Your task to perform on an android device: install app "Messenger Lite" Image 0: 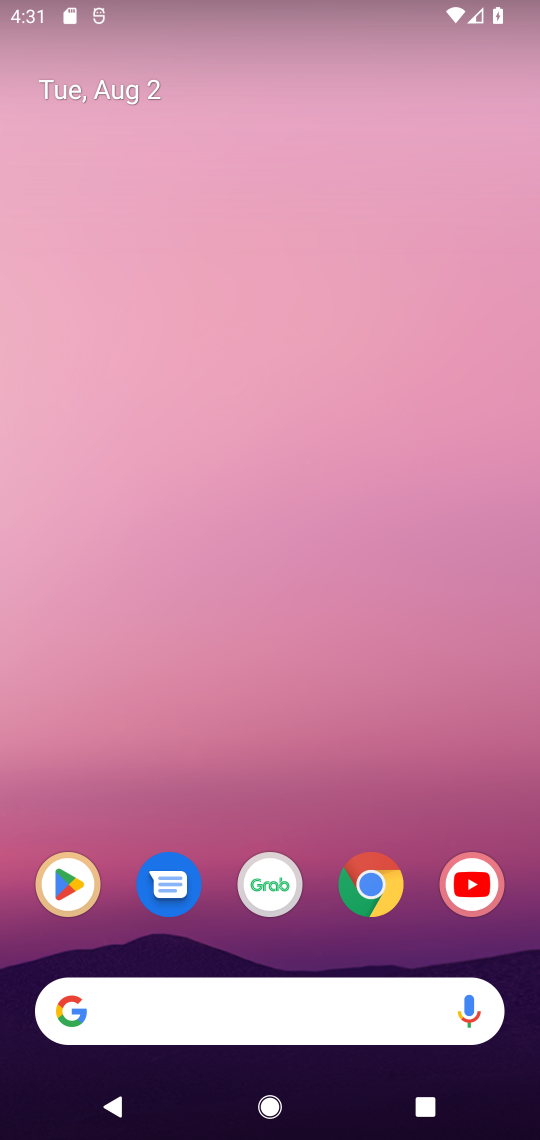
Step 0: click (93, 869)
Your task to perform on an android device: install app "Messenger Lite" Image 1: 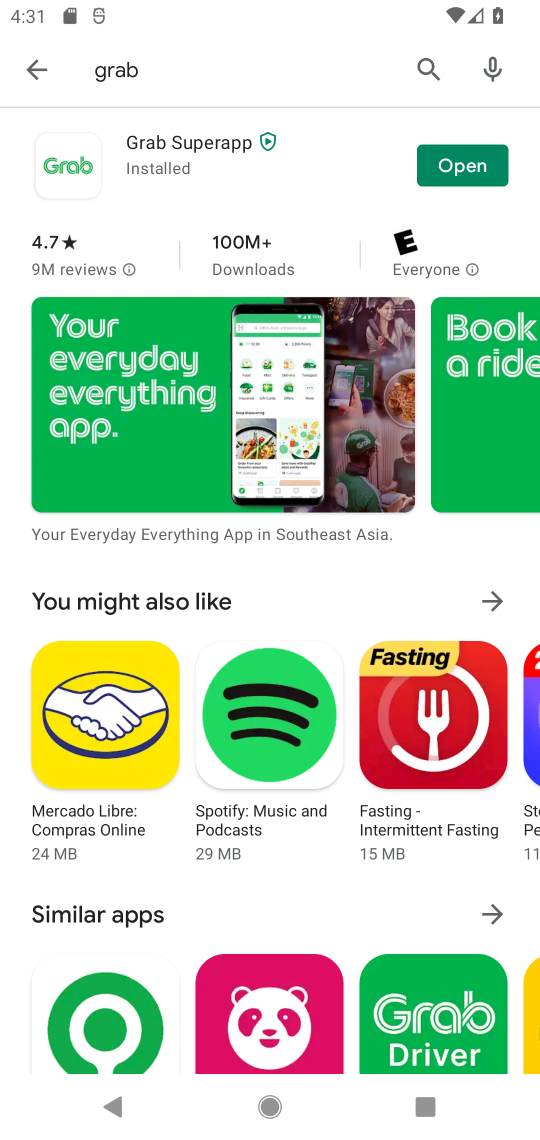
Step 1: click (431, 66)
Your task to perform on an android device: install app "Messenger Lite" Image 2: 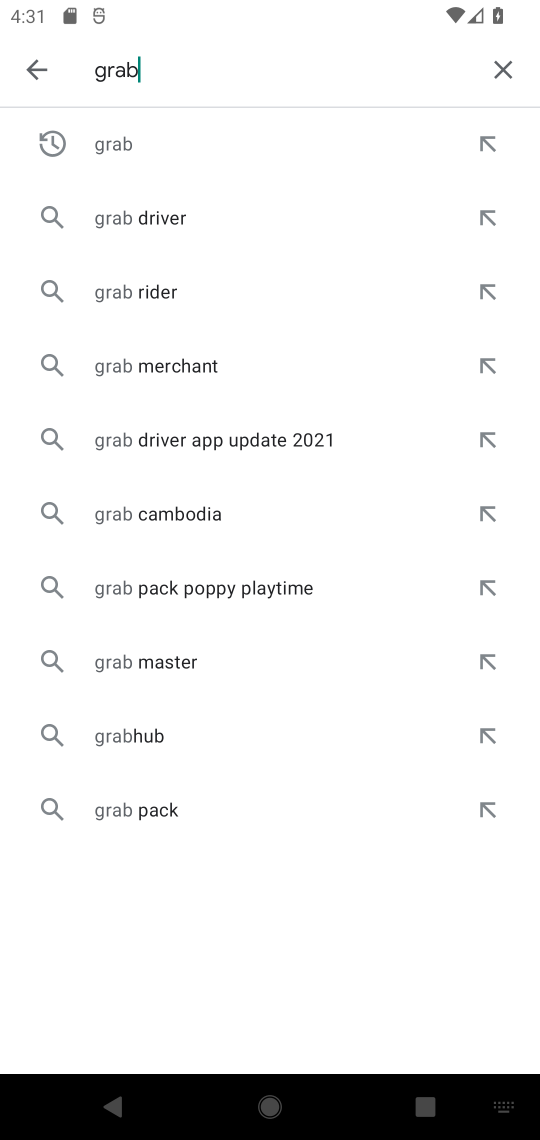
Step 2: click (504, 68)
Your task to perform on an android device: install app "Messenger Lite" Image 3: 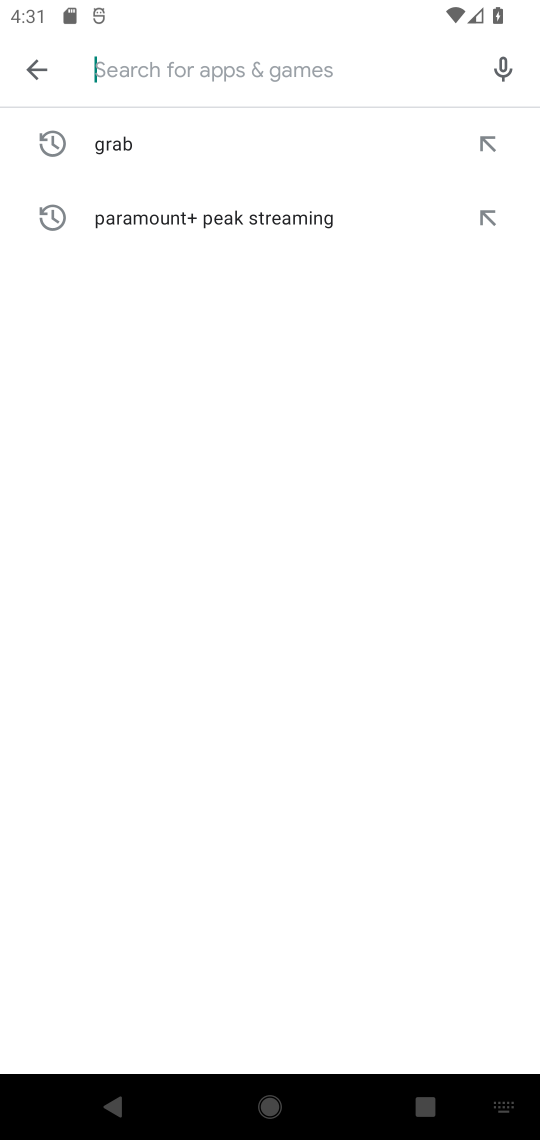
Step 3: type "Messenger Lite"
Your task to perform on an android device: install app "Messenger Lite" Image 4: 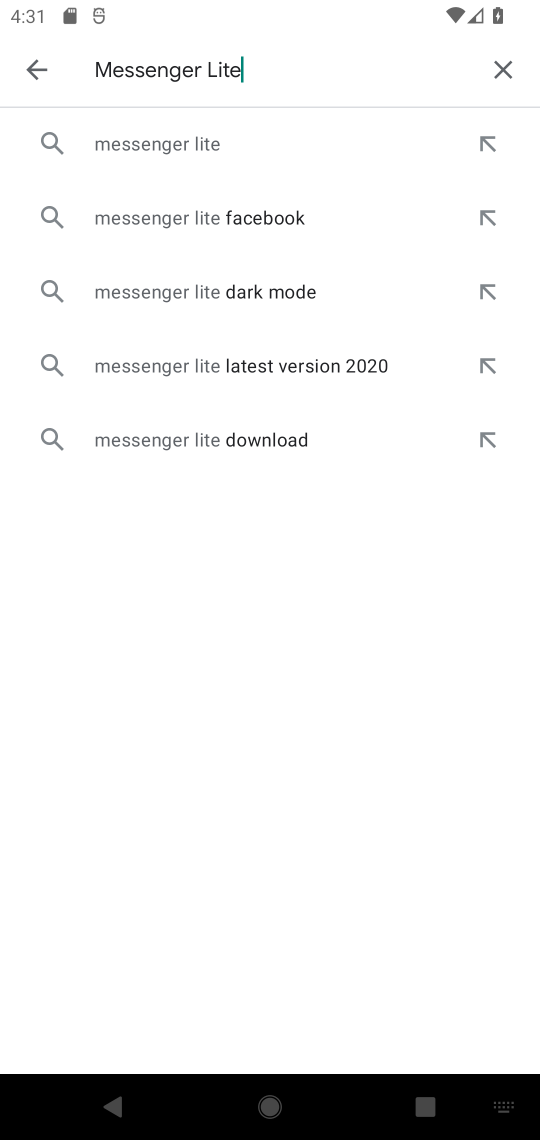
Step 4: click (243, 140)
Your task to perform on an android device: install app "Messenger Lite" Image 5: 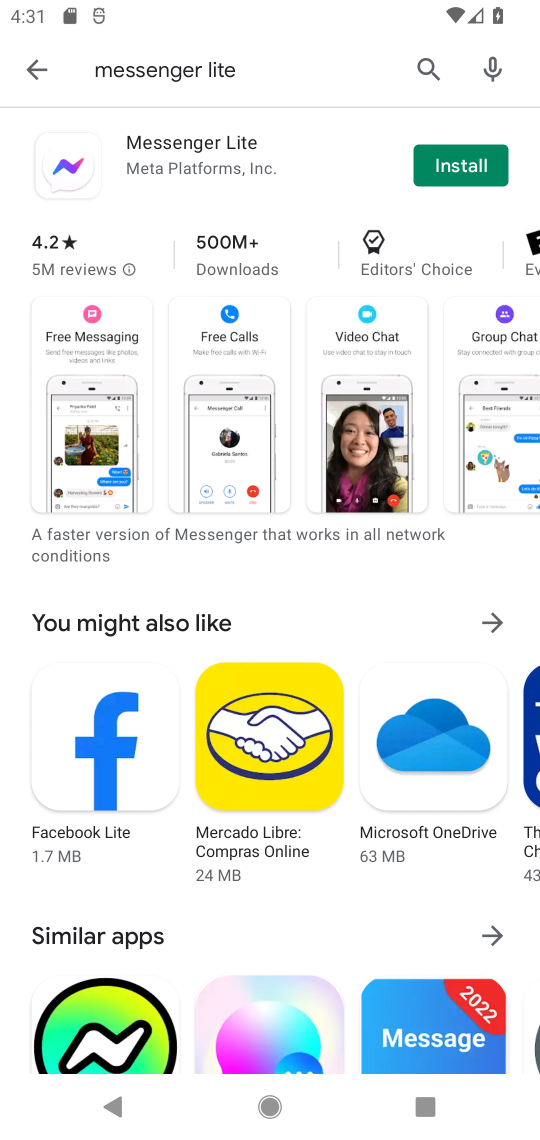
Step 5: click (433, 169)
Your task to perform on an android device: install app "Messenger Lite" Image 6: 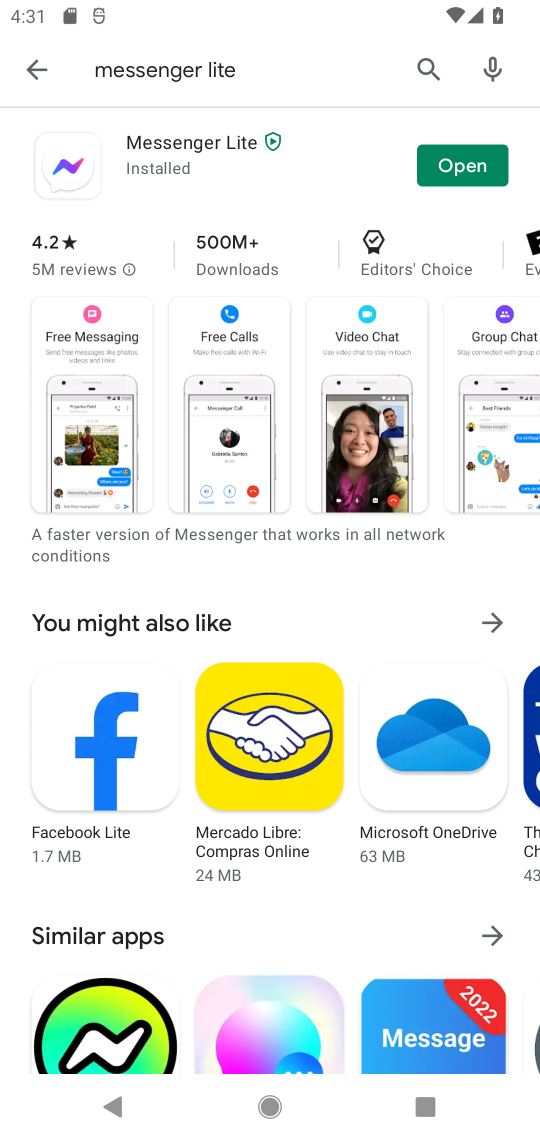
Step 6: task complete